Your task to perform on an android device: turn off notifications in google photos Image 0: 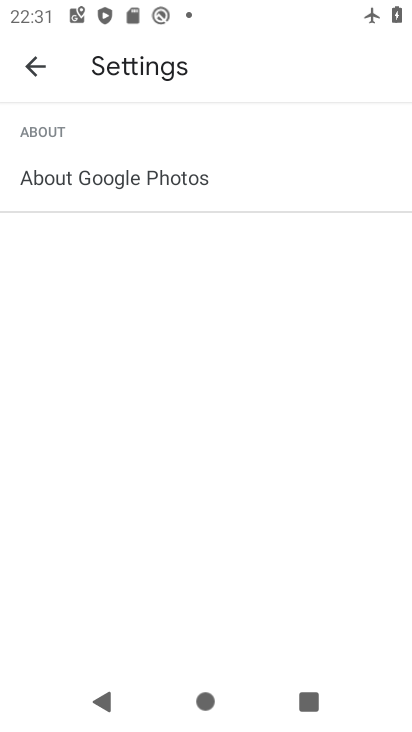
Step 0: press home button
Your task to perform on an android device: turn off notifications in google photos Image 1: 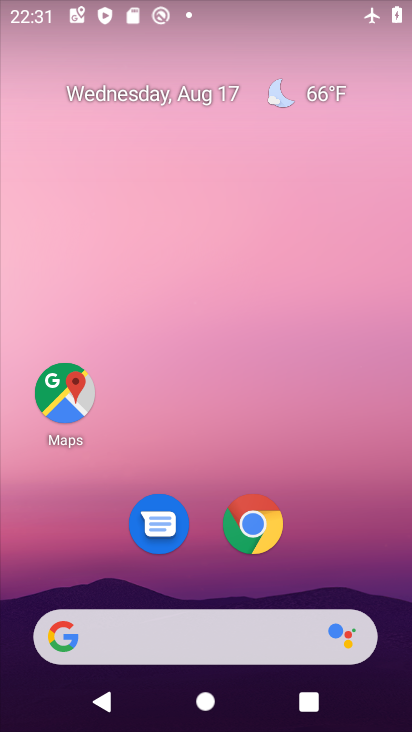
Step 1: drag from (336, 534) to (352, 3)
Your task to perform on an android device: turn off notifications in google photos Image 2: 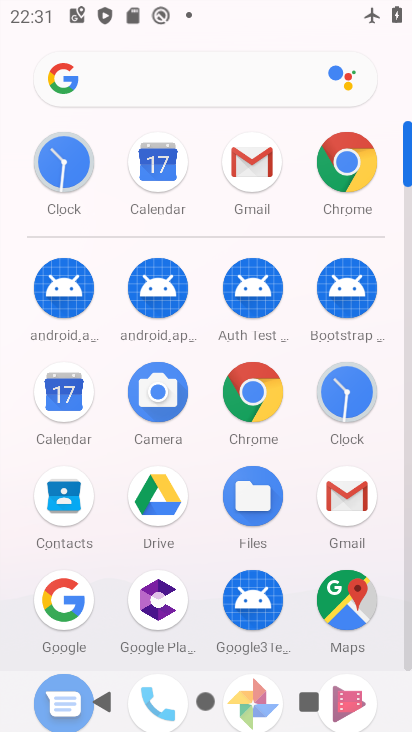
Step 2: drag from (210, 509) to (245, 36)
Your task to perform on an android device: turn off notifications in google photos Image 3: 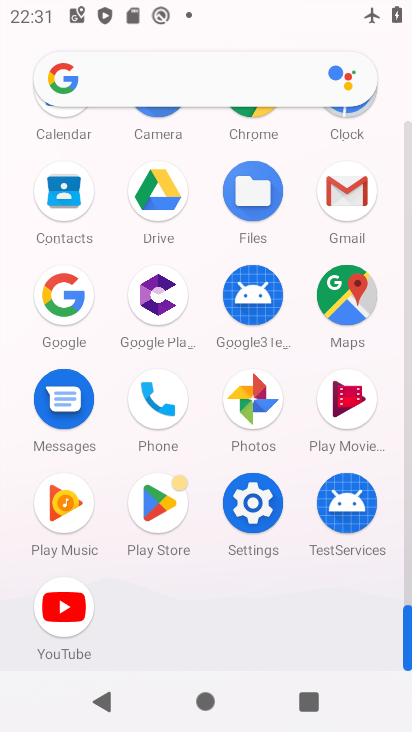
Step 3: click (251, 503)
Your task to perform on an android device: turn off notifications in google photos Image 4: 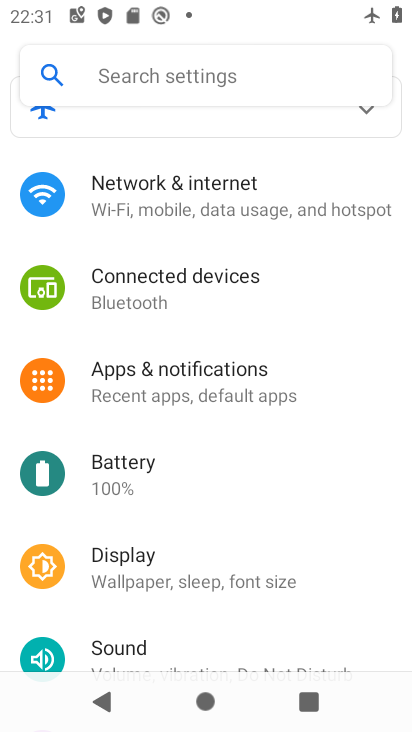
Step 4: click (227, 393)
Your task to perform on an android device: turn off notifications in google photos Image 5: 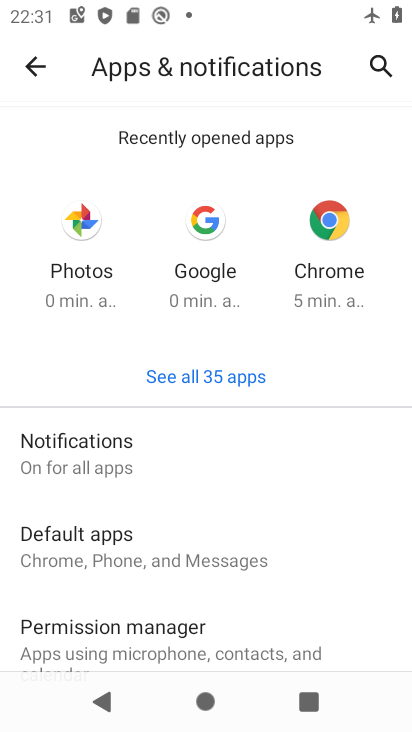
Step 5: click (81, 214)
Your task to perform on an android device: turn off notifications in google photos Image 6: 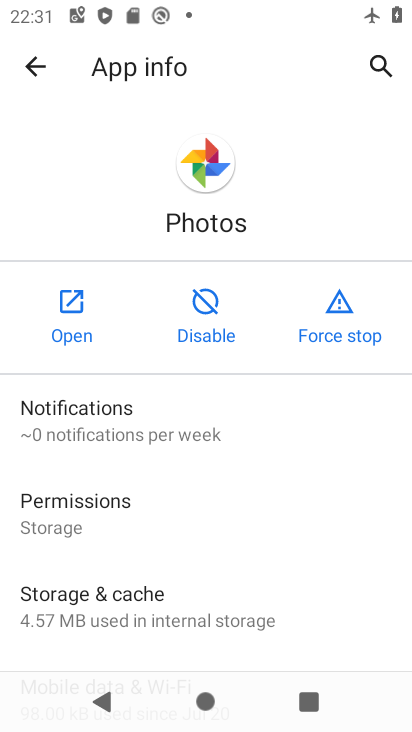
Step 6: click (113, 418)
Your task to perform on an android device: turn off notifications in google photos Image 7: 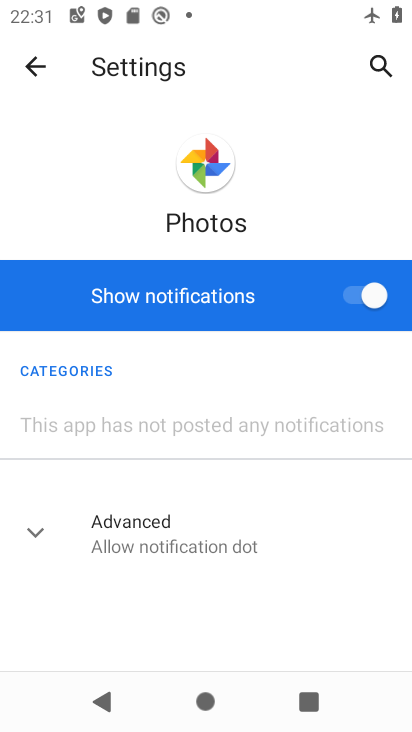
Step 7: click (359, 293)
Your task to perform on an android device: turn off notifications in google photos Image 8: 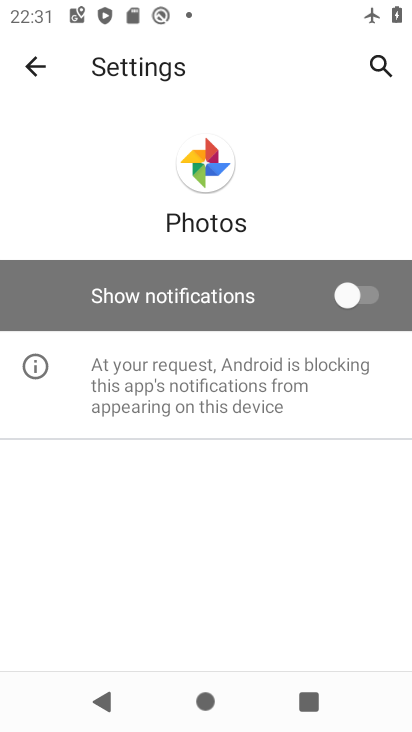
Step 8: task complete